Your task to perform on an android device: Is it going to rain this weekend? Image 0: 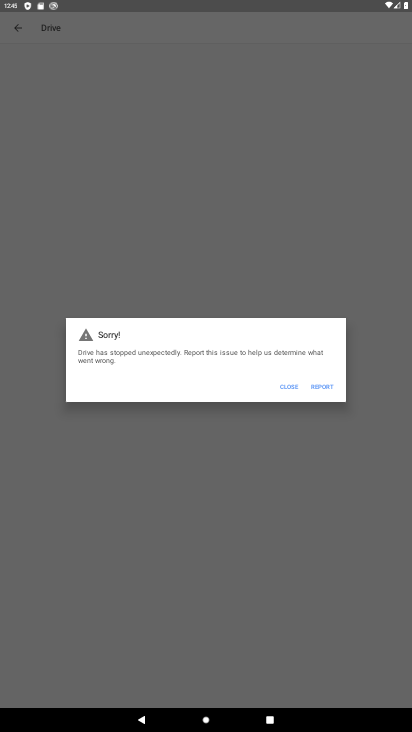
Step 0: press home button
Your task to perform on an android device: Is it going to rain this weekend? Image 1: 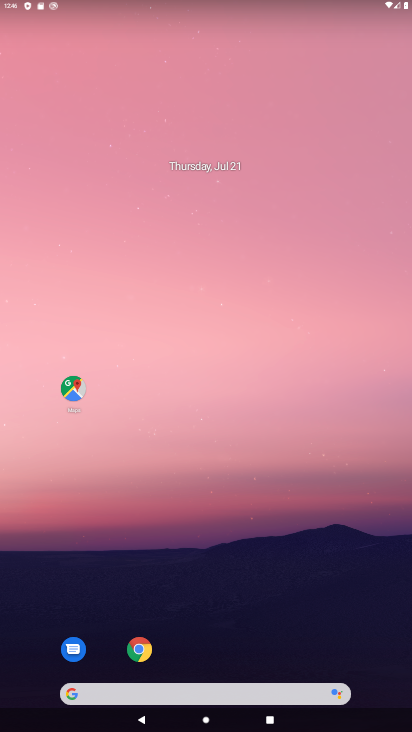
Step 1: drag from (149, 663) to (149, 254)
Your task to perform on an android device: Is it going to rain this weekend? Image 2: 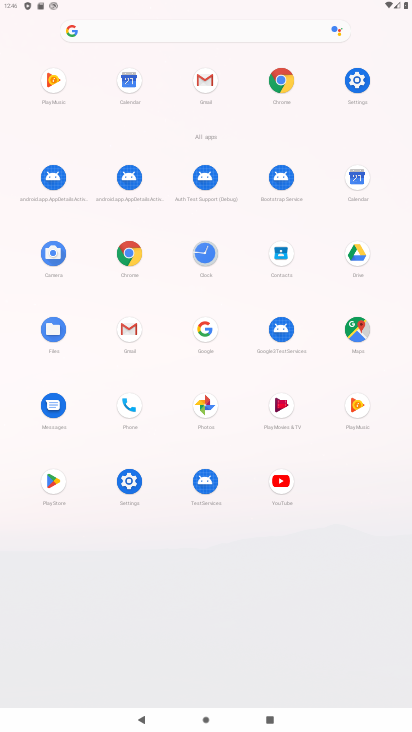
Step 2: click (204, 329)
Your task to perform on an android device: Is it going to rain this weekend? Image 3: 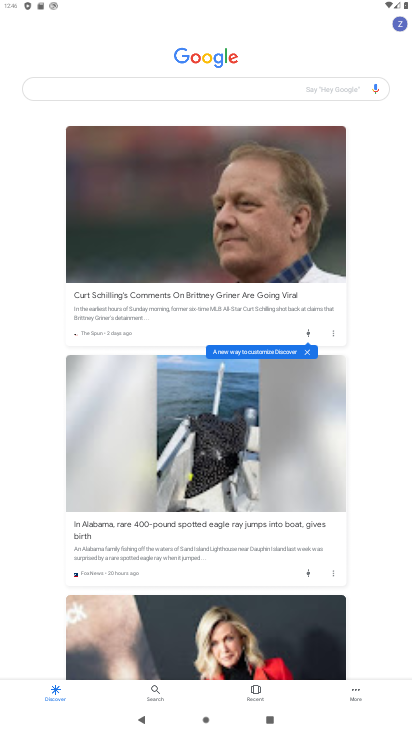
Step 3: click (139, 78)
Your task to perform on an android device: Is it going to rain this weekend? Image 4: 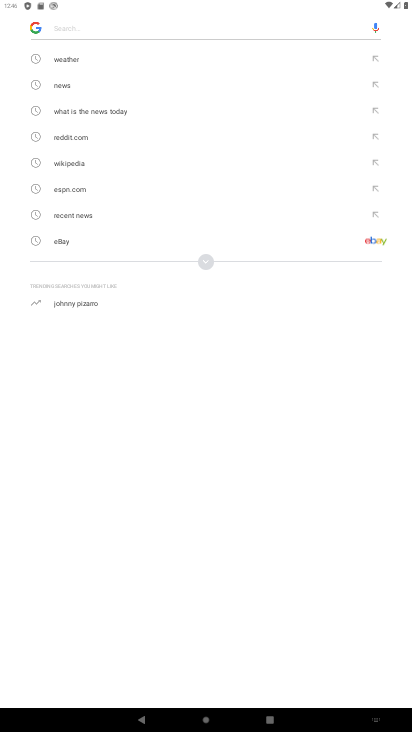
Step 4: click (203, 258)
Your task to perform on an android device: Is it going to rain this weekend? Image 5: 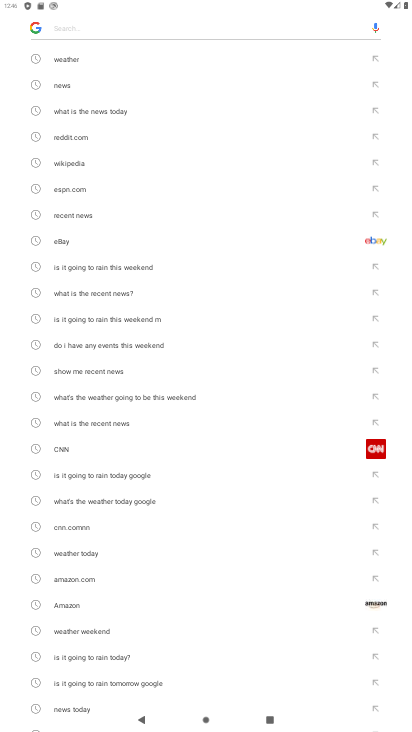
Step 5: click (133, 322)
Your task to perform on an android device: Is it going to rain this weekend? Image 6: 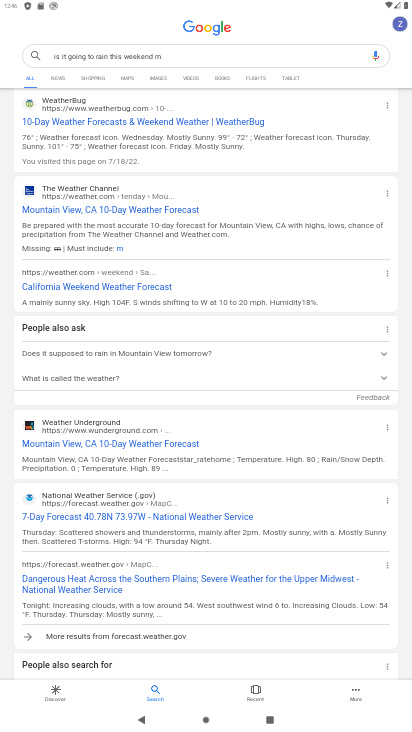
Step 6: click (149, 126)
Your task to perform on an android device: Is it going to rain this weekend? Image 7: 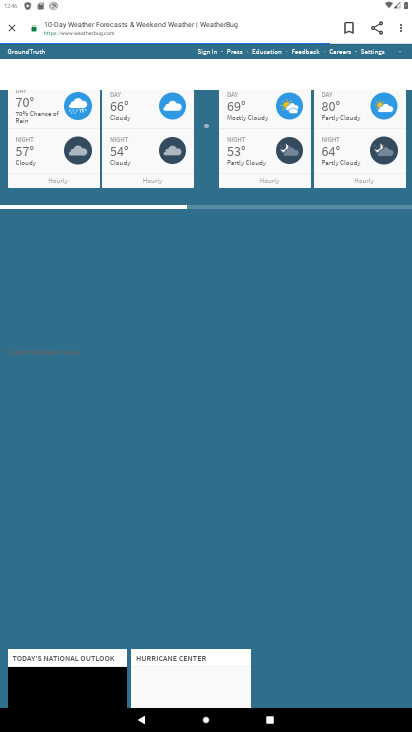
Step 7: task complete